Your task to perform on an android device: Go to location settings Image 0: 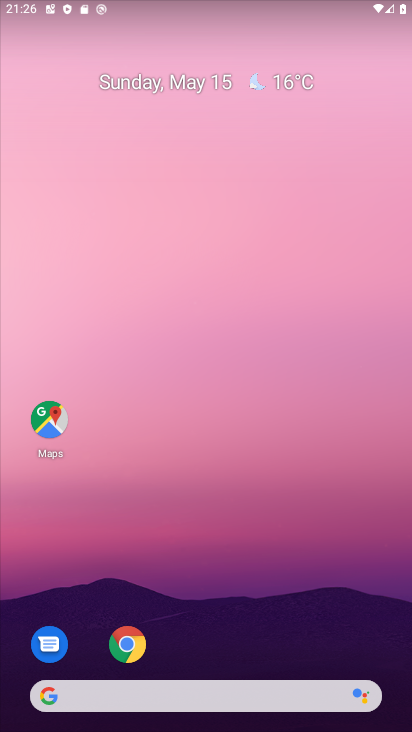
Step 0: drag from (232, 661) to (300, 79)
Your task to perform on an android device: Go to location settings Image 1: 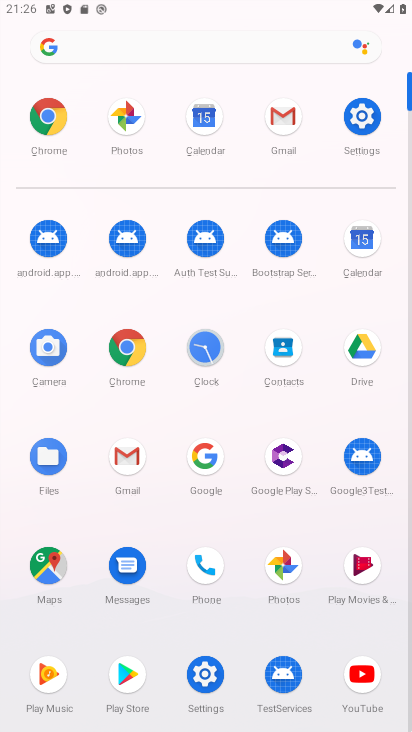
Step 1: click (358, 117)
Your task to perform on an android device: Go to location settings Image 2: 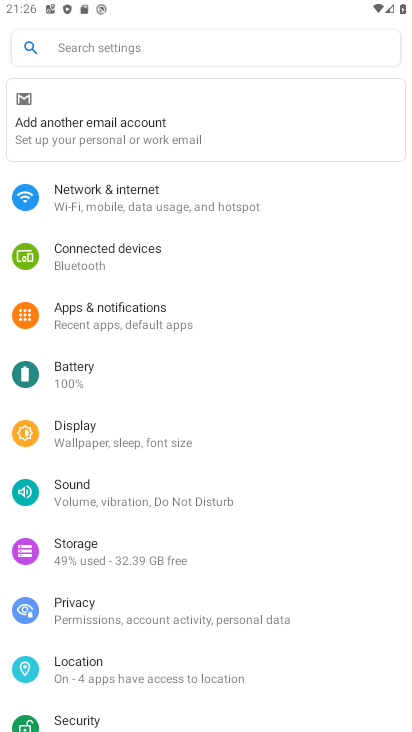
Step 2: drag from (143, 646) to (169, 398)
Your task to perform on an android device: Go to location settings Image 3: 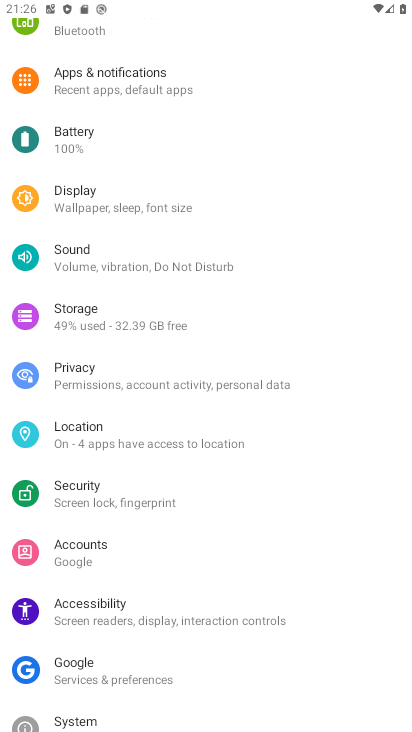
Step 3: click (153, 440)
Your task to perform on an android device: Go to location settings Image 4: 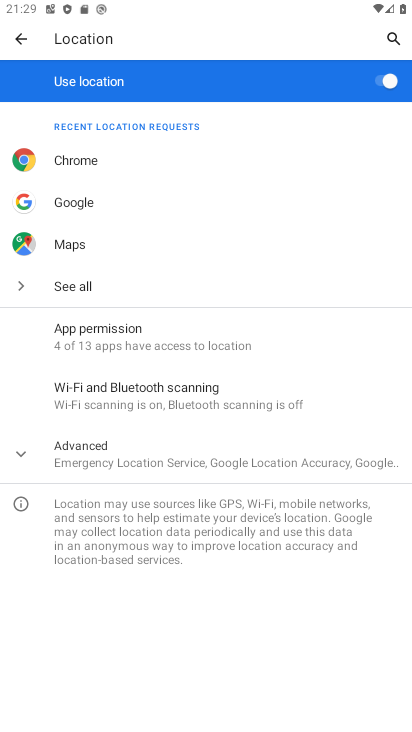
Step 4: task complete